Your task to perform on an android device: Go to Yahoo.com Image 0: 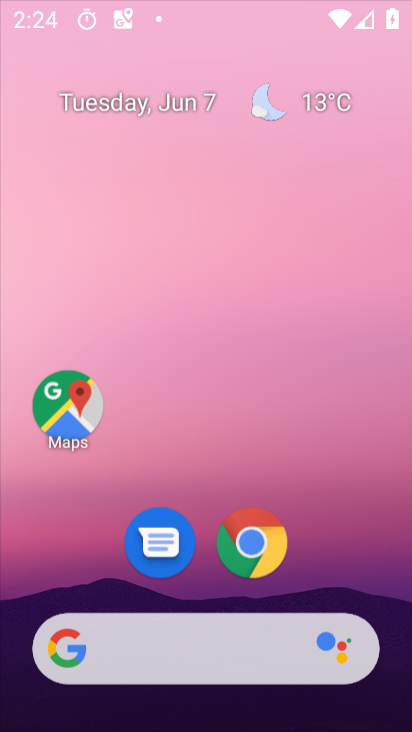
Step 0: click (188, 25)
Your task to perform on an android device: Go to Yahoo.com Image 1: 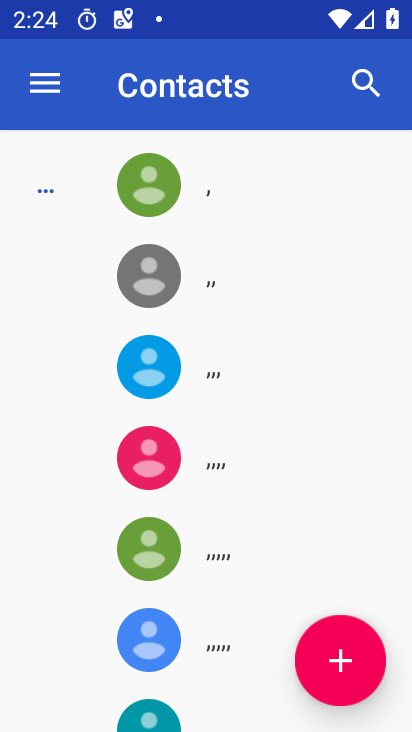
Step 1: press home button
Your task to perform on an android device: Go to Yahoo.com Image 2: 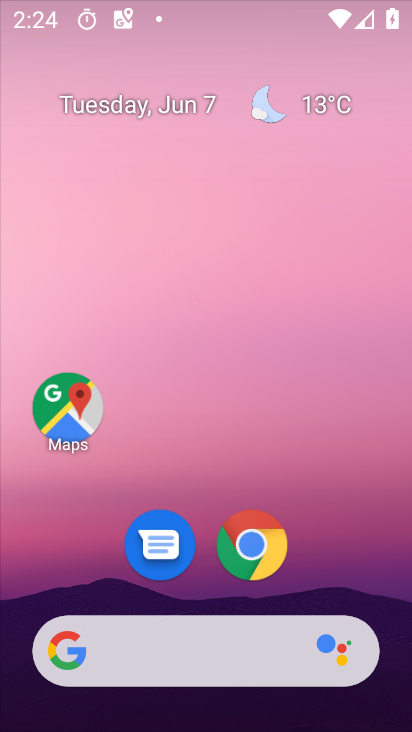
Step 2: click (242, 591)
Your task to perform on an android device: Go to Yahoo.com Image 3: 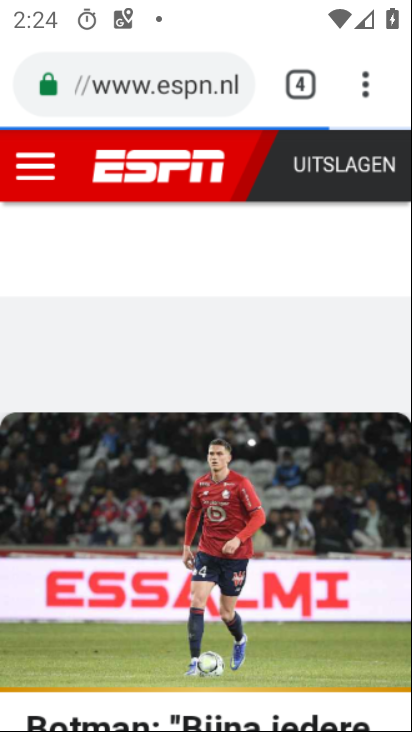
Step 3: click (291, 82)
Your task to perform on an android device: Go to Yahoo.com Image 4: 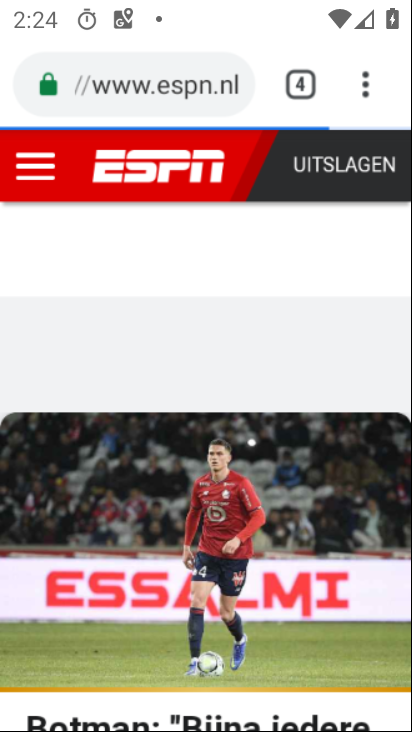
Step 4: click (31, 76)
Your task to perform on an android device: Go to Yahoo.com Image 5: 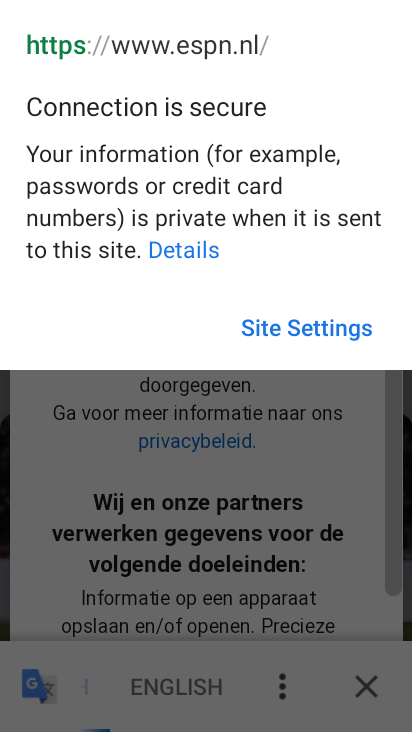
Step 5: click (286, 329)
Your task to perform on an android device: Go to Yahoo.com Image 6: 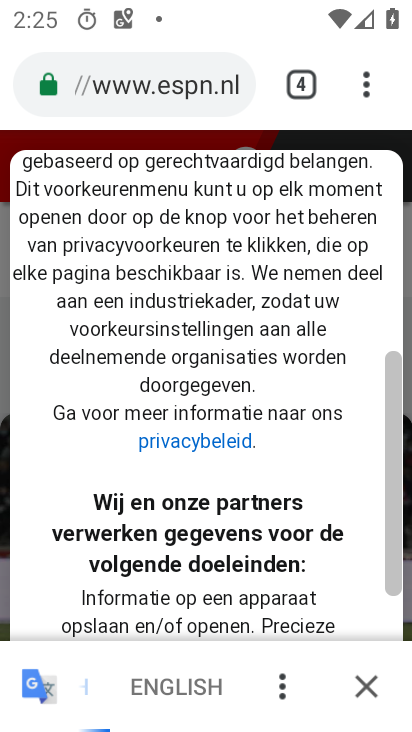
Step 6: click (352, 457)
Your task to perform on an android device: Go to Yahoo.com Image 7: 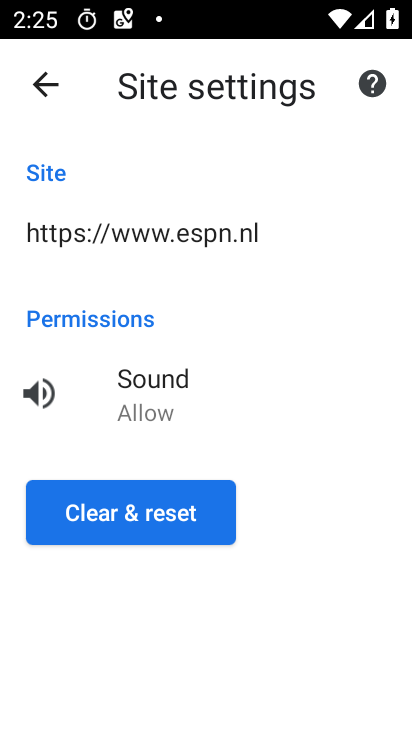
Step 7: click (305, 82)
Your task to perform on an android device: Go to Yahoo.com Image 8: 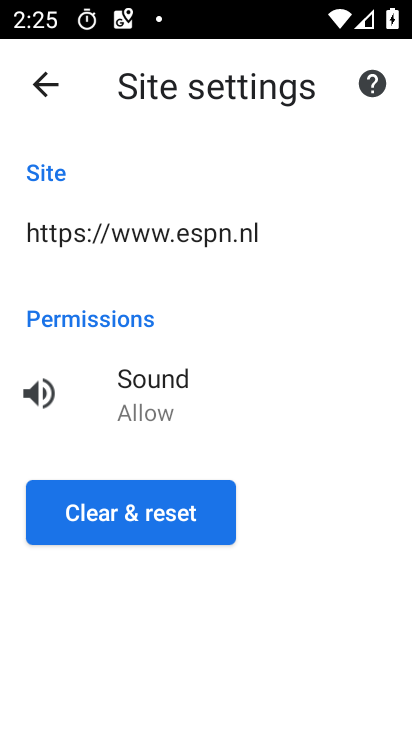
Step 8: click (34, 72)
Your task to perform on an android device: Go to Yahoo.com Image 9: 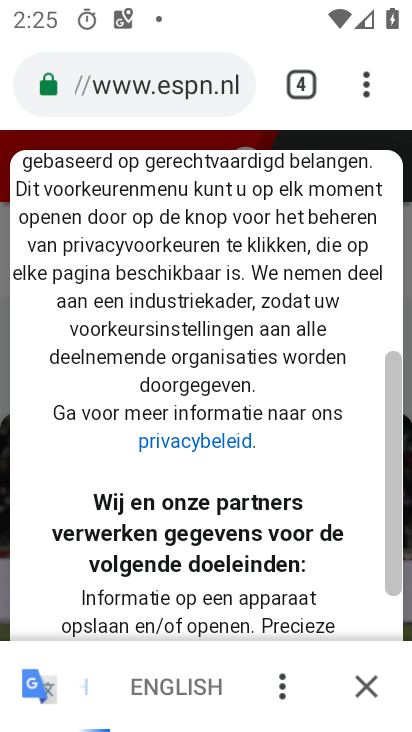
Step 9: click (298, 66)
Your task to perform on an android device: Go to Yahoo.com Image 10: 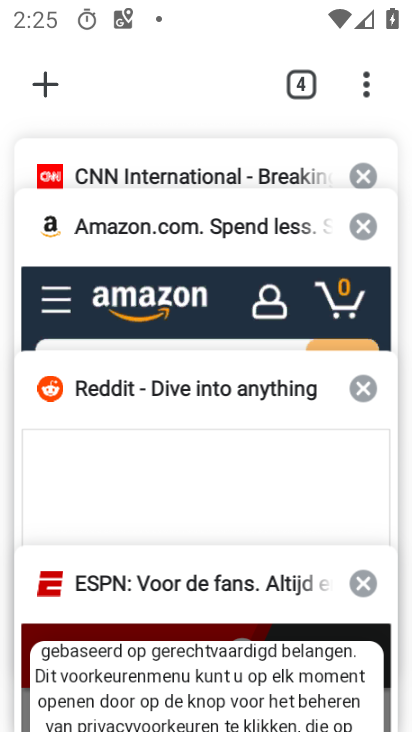
Step 10: click (50, 83)
Your task to perform on an android device: Go to Yahoo.com Image 11: 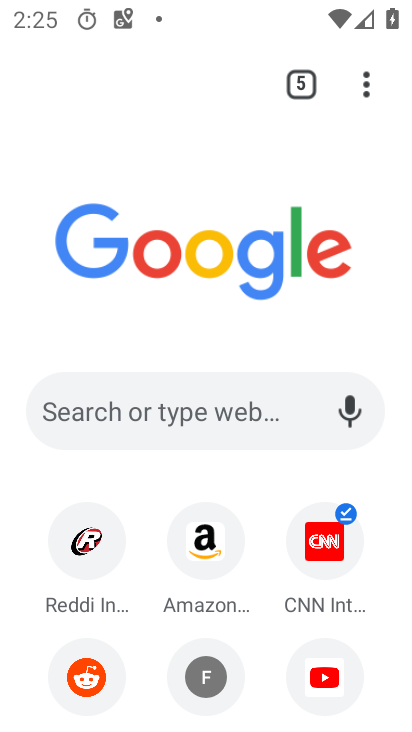
Step 11: click (182, 411)
Your task to perform on an android device: Go to Yahoo.com Image 12: 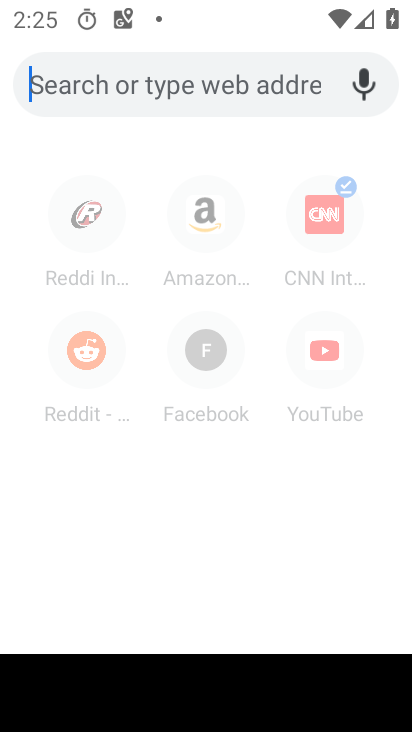
Step 12: type "yahoo.com"
Your task to perform on an android device: Go to Yahoo.com Image 13: 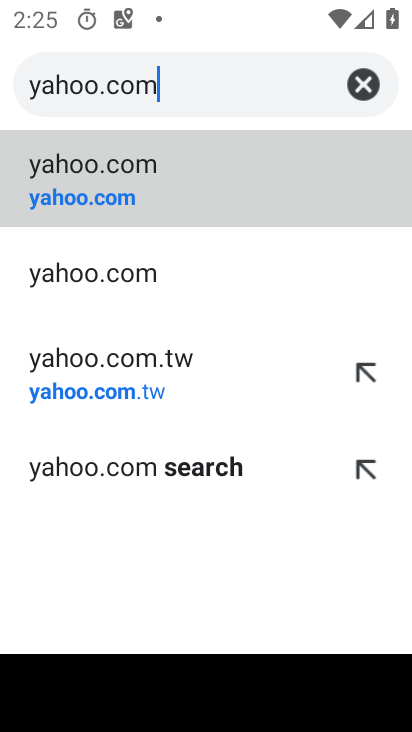
Step 13: click (148, 149)
Your task to perform on an android device: Go to Yahoo.com Image 14: 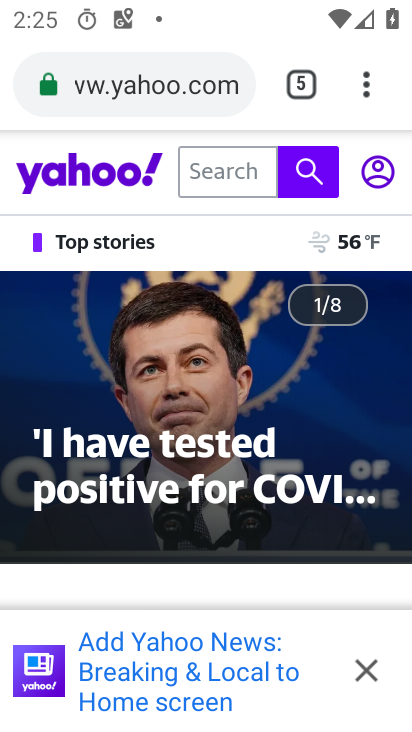
Step 14: task complete